Your task to perform on an android device: Open Maps and search for coffee Image 0: 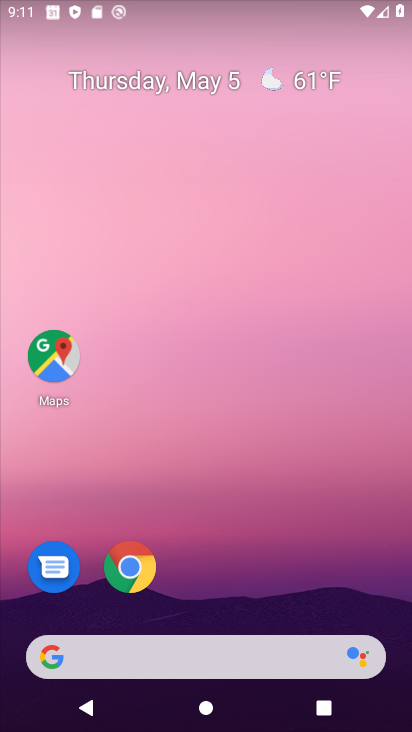
Step 0: drag from (240, 704) to (217, 250)
Your task to perform on an android device: Open Maps and search for coffee Image 1: 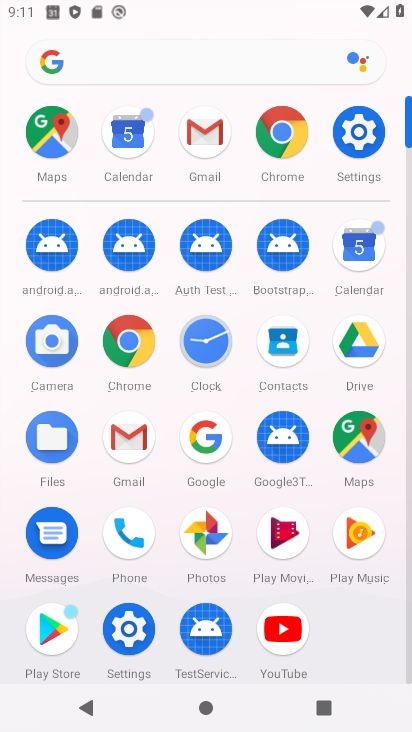
Step 1: click (350, 436)
Your task to perform on an android device: Open Maps and search for coffee Image 2: 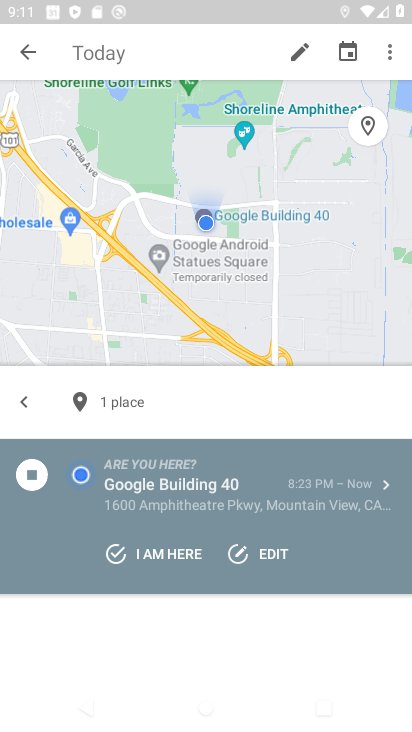
Step 2: click (25, 50)
Your task to perform on an android device: Open Maps and search for coffee Image 3: 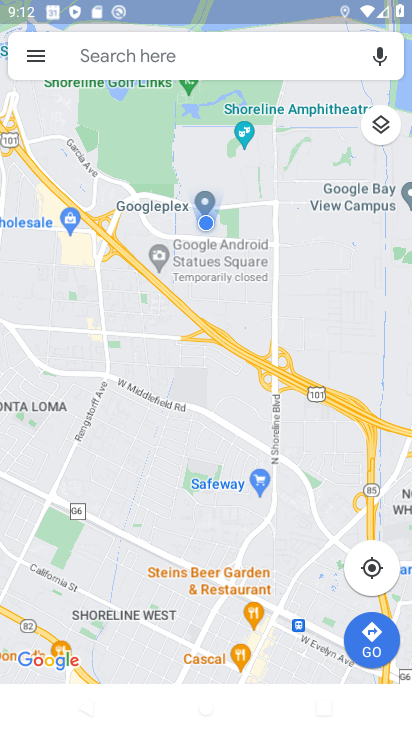
Step 3: click (157, 54)
Your task to perform on an android device: Open Maps and search for coffee Image 4: 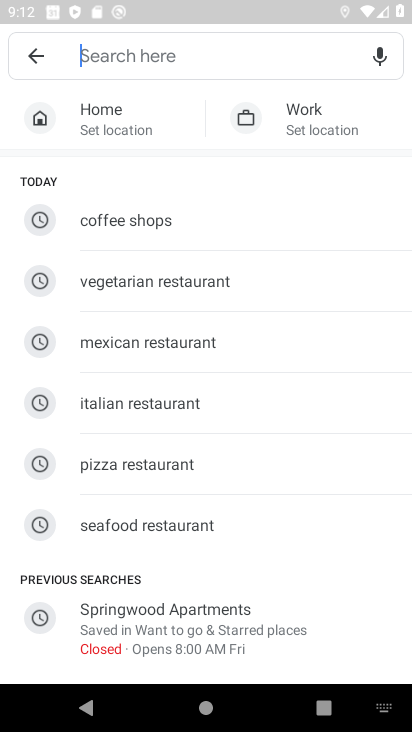
Step 4: click (139, 52)
Your task to perform on an android device: Open Maps and search for coffee Image 5: 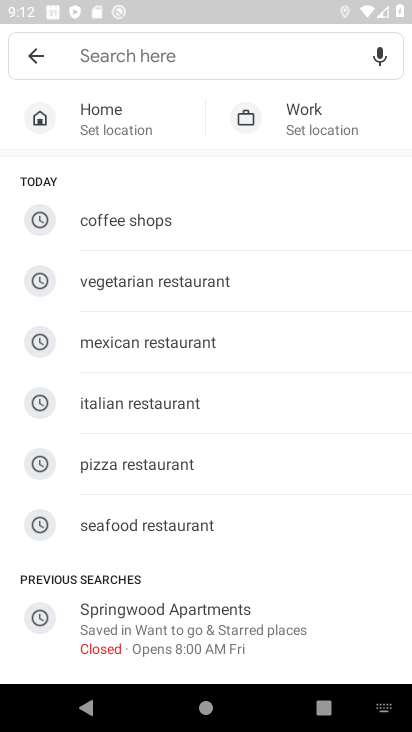
Step 5: type "coffee"
Your task to perform on an android device: Open Maps and search for coffee Image 6: 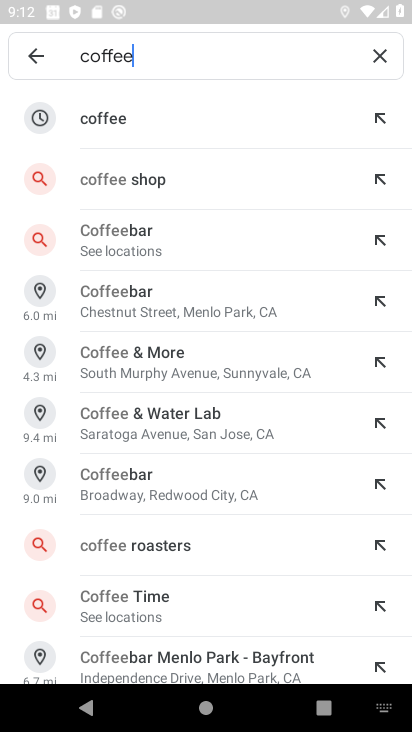
Step 6: click (156, 117)
Your task to perform on an android device: Open Maps and search for coffee Image 7: 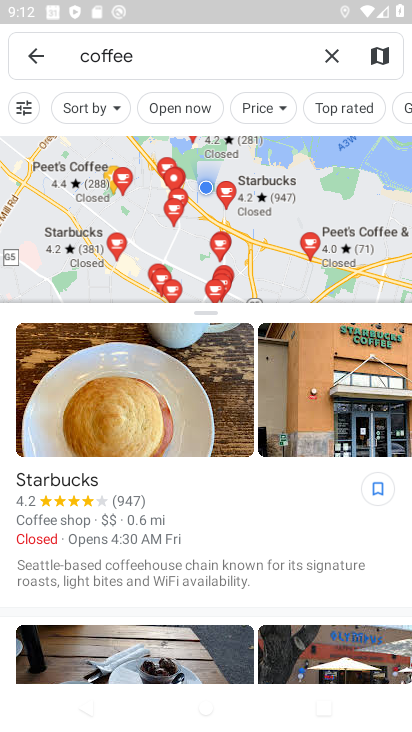
Step 7: task complete